Your task to perform on an android device: Check the news Image 0: 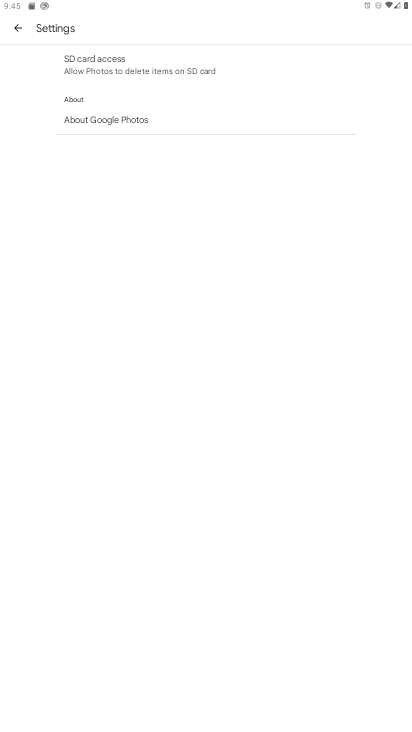
Step 0: press home button
Your task to perform on an android device: Check the news Image 1: 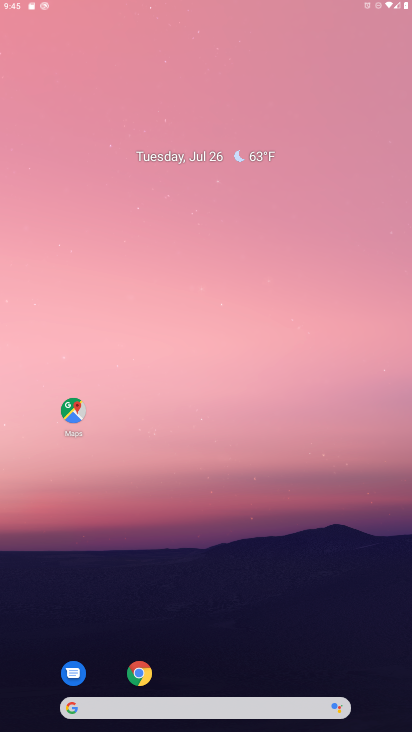
Step 1: drag from (389, 669) to (139, 28)
Your task to perform on an android device: Check the news Image 2: 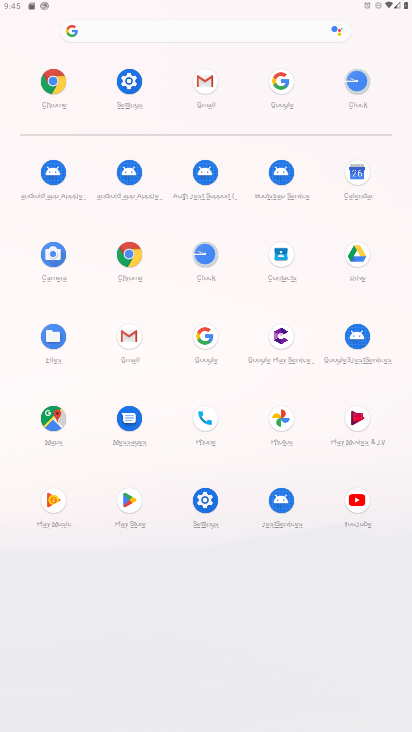
Step 2: click (135, 257)
Your task to perform on an android device: Check the news Image 3: 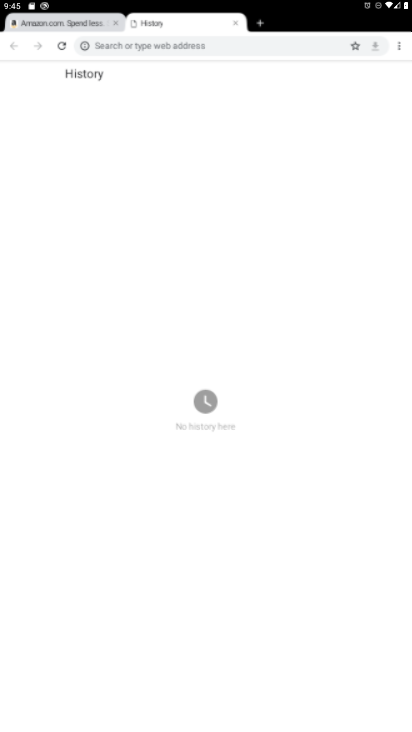
Step 3: press home button
Your task to perform on an android device: Check the news Image 4: 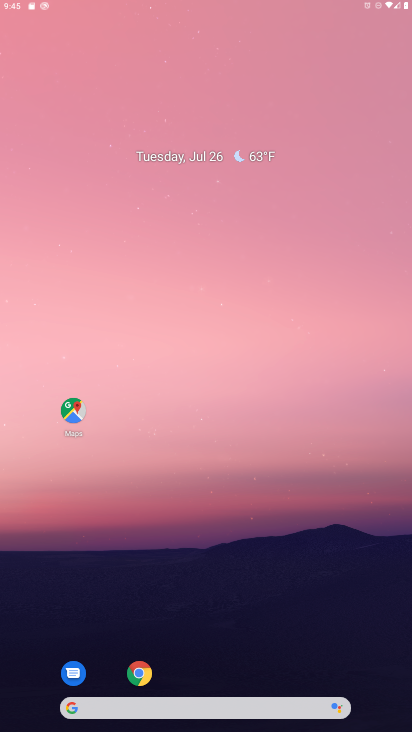
Step 4: drag from (366, 664) to (183, 16)
Your task to perform on an android device: Check the news Image 5: 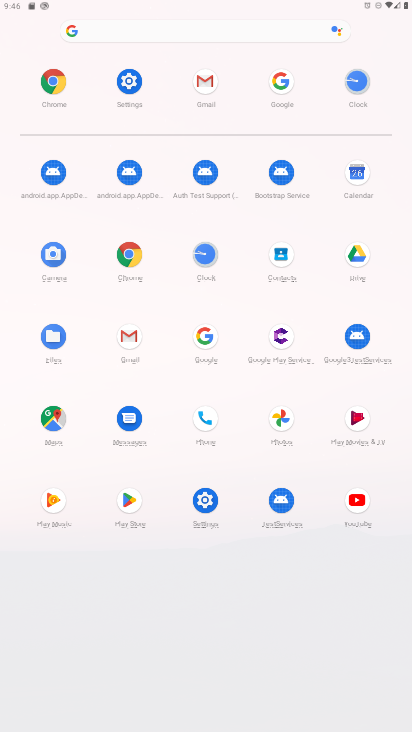
Step 5: click (204, 339)
Your task to perform on an android device: Check the news Image 6: 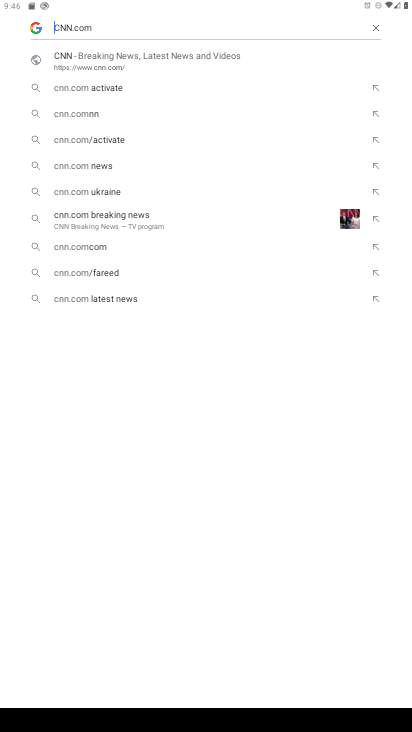
Step 6: click (374, 25)
Your task to perform on an android device: Check the news Image 7: 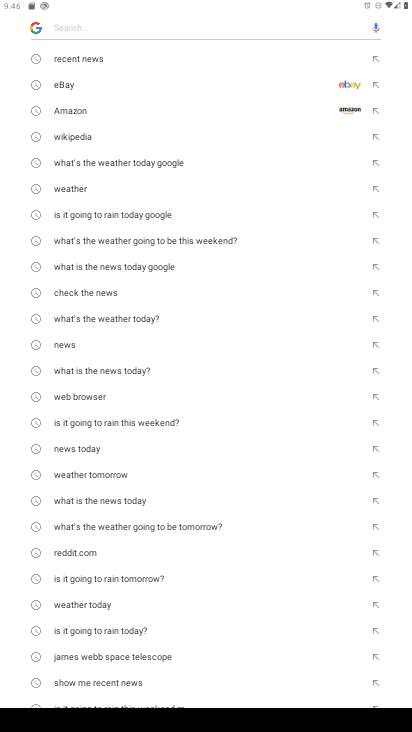
Step 7: click (152, 27)
Your task to perform on an android device: Check the news Image 8: 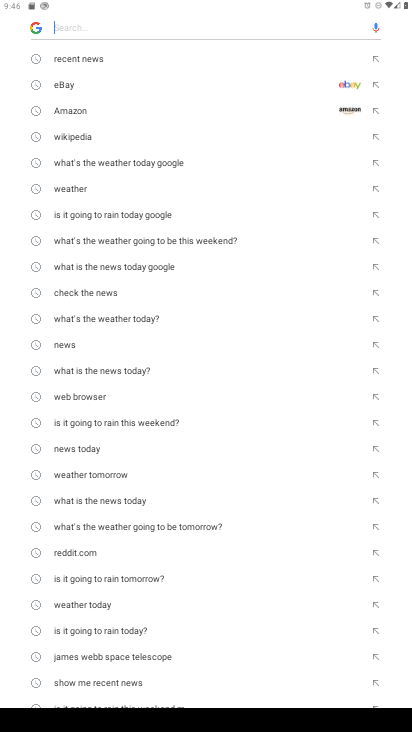
Step 8: click (66, 343)
Your task to perform on an android device: Check the news Image 9: 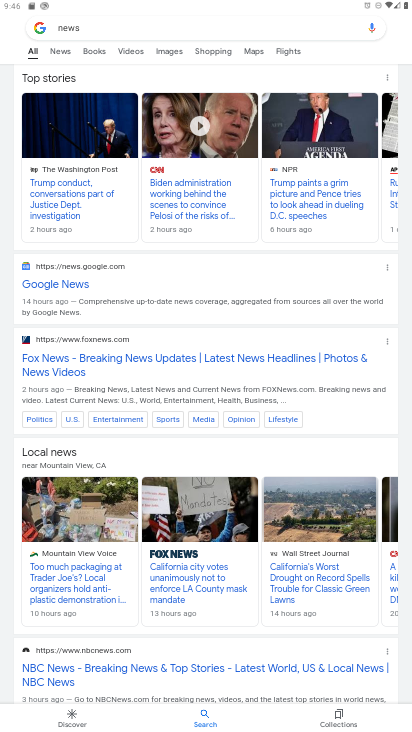
Step 9: task complete